Your task to perform on an android device: What's the weather going to be tomorrow? Image 0: 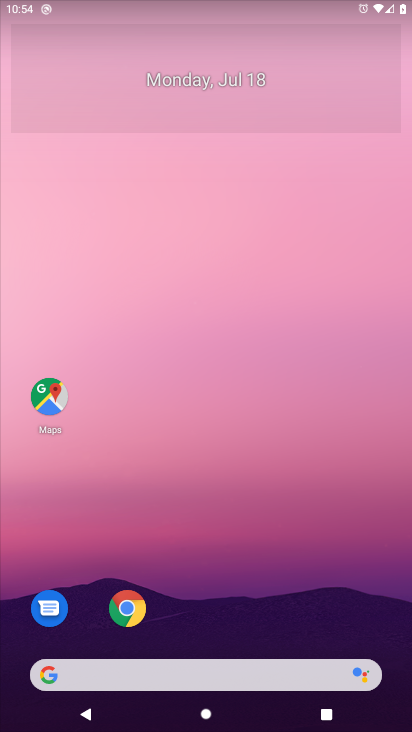
Step 0: click (124, 682)
Your task to perform on an android device: What's the weather going to be tomorrow? Image 1: 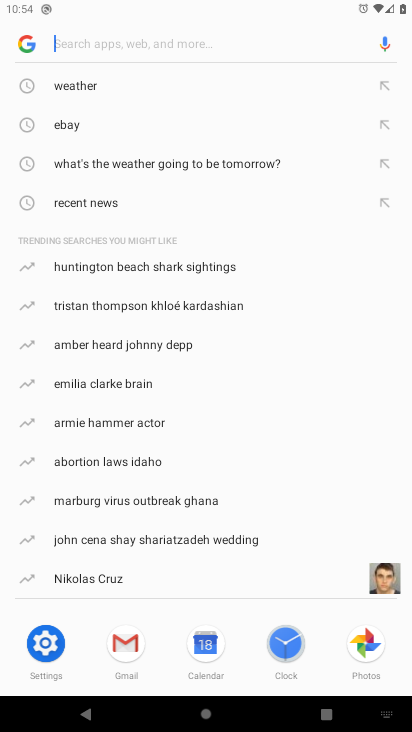
Step 1: type "What's the weather going to be tomorrow?"
Your task to perform on an android device: What's the weather going to be tomorrow? Image 2: 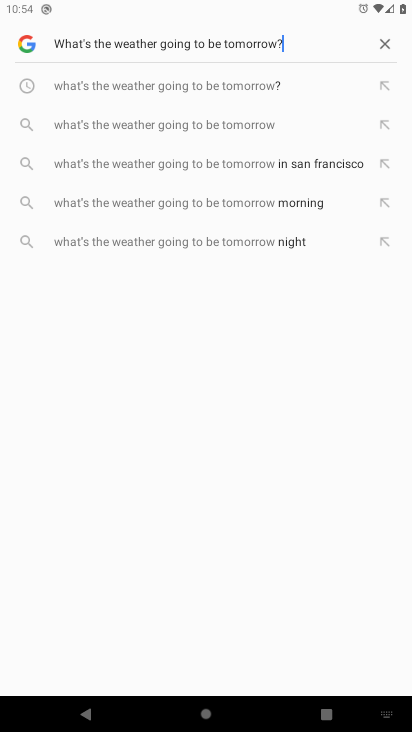
Step 2: type ""
Your task to perform on an android device: What's the weather going to be tomorrow? Image 3: 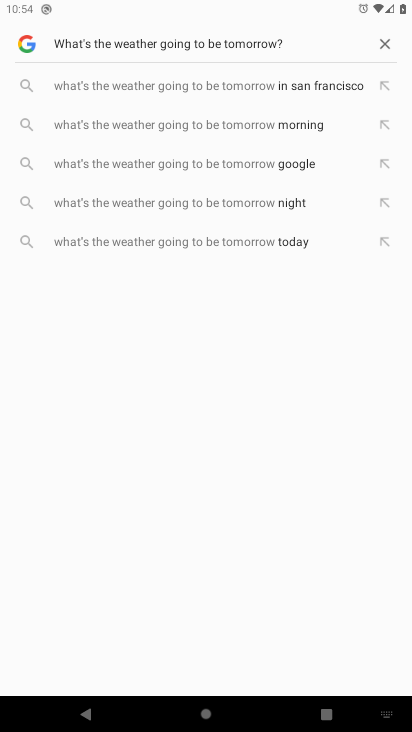
Step 3: task complete